Your task to perform on an android device: Open my contact list Image 0: 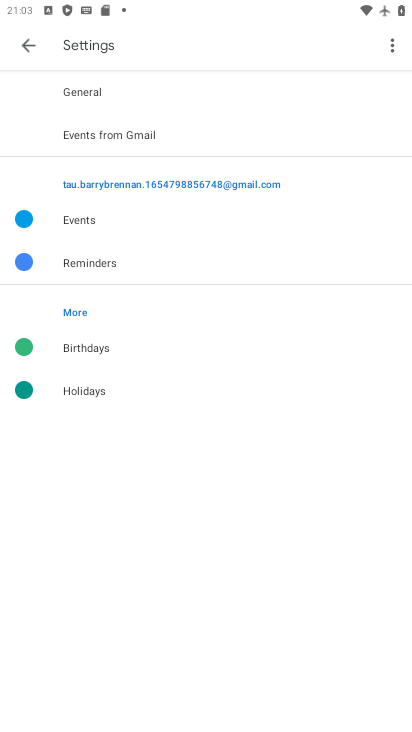
Step 0: press home button
Your task to perform on an android device: Open my contact list Image 1: 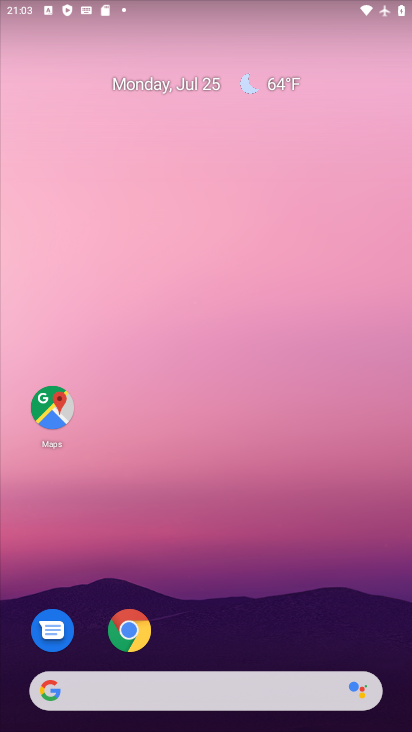
Step 1: drag from (377, 626) to (333, 153)
Your task to perform on an android device: Open my contact list Image 2: 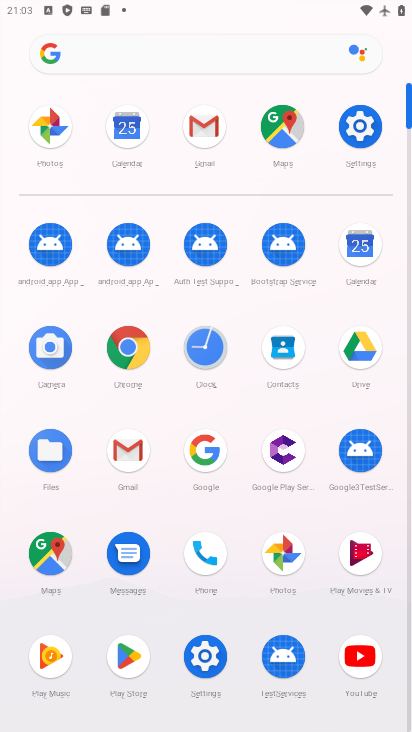
Step 2: click (280, 348)
Your task to perform on an android device: Open my contact list Image 3: 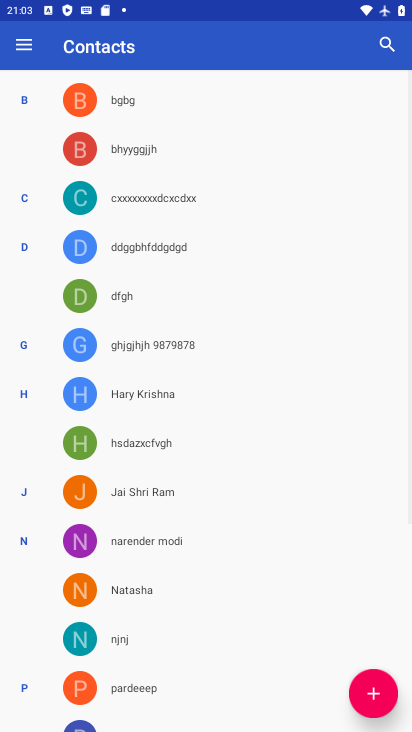
Step 3: task complete